Your task to perform on an android device: add a contact Image 0: 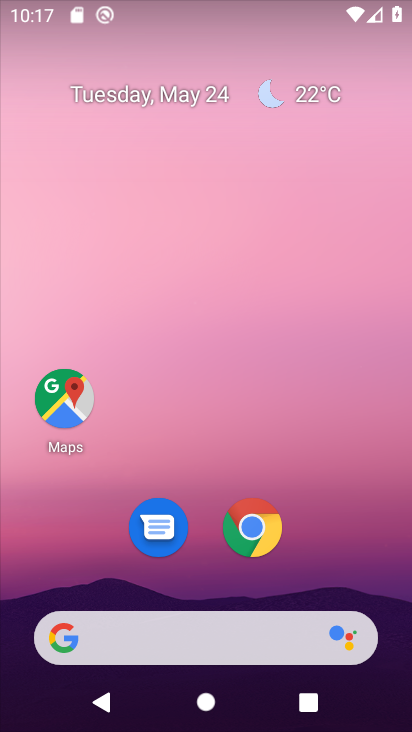
Step 0: drag from (171, 642) to (292, 160)
Your task to perform on an android device: add a contact Image 1: 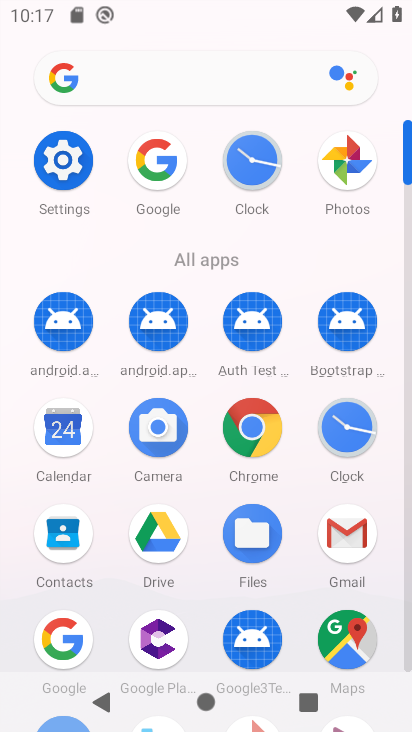
Step 1: click (64, 540)
Your task to perform on an android device: add a contact Image 2: 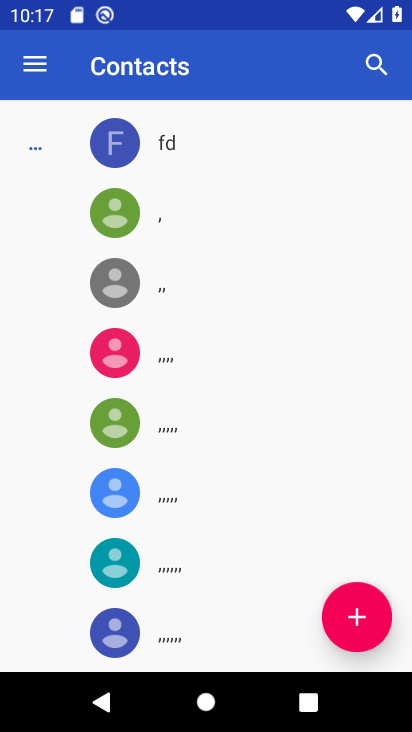
Step 2: click (353, 620)
Your task to perform on an android device: add a contact Image 3: 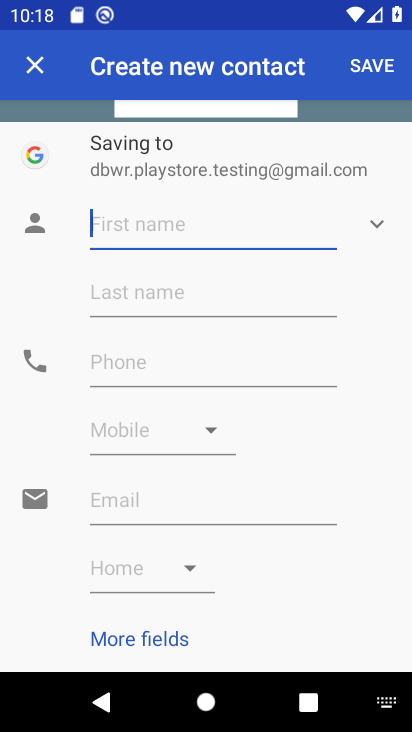
Step 3: type "nerrtdgdfgf"
Your task to perform on an android device: add a contact Image 4: 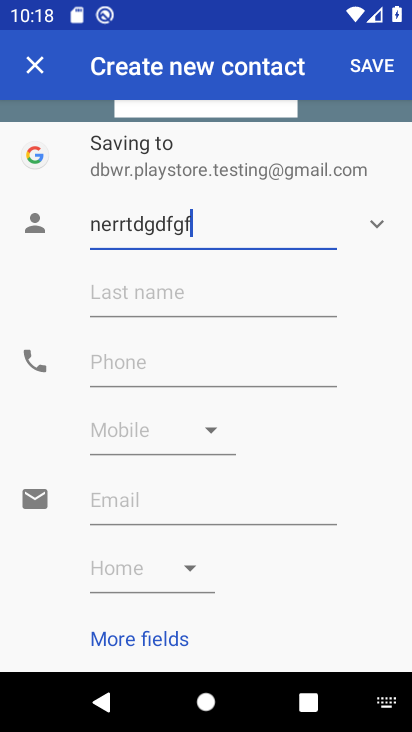
Step 4: click (132, 362)
Your task to perform on an android device: add a contact Image 5: 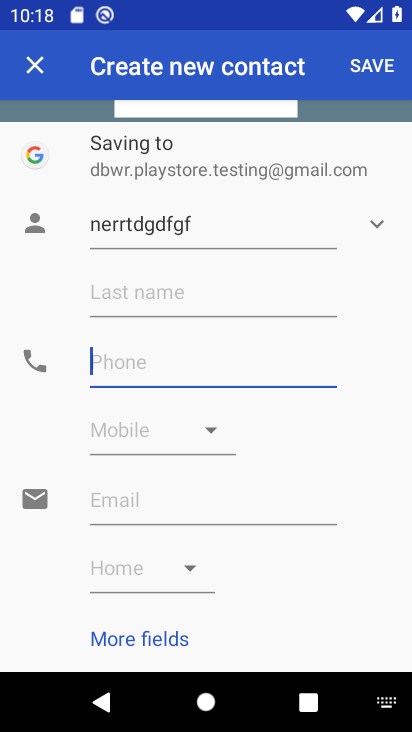
Step 5: type "26455868"
Your task to perform on an android device: add a contact Image 6: 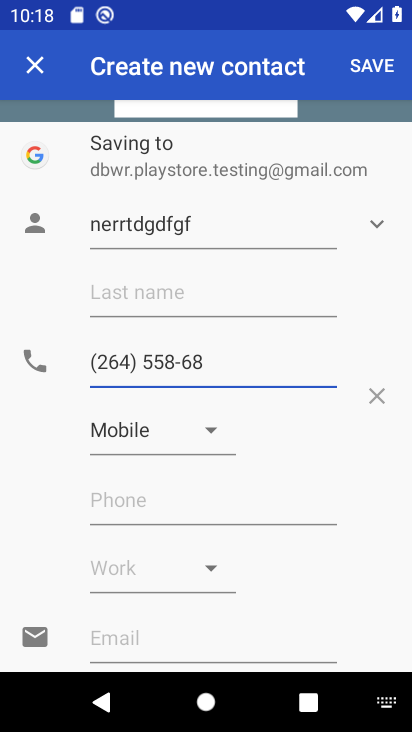
Step 6: click (373, 59)
Your task to perform on an android device: add a contact Image 7: 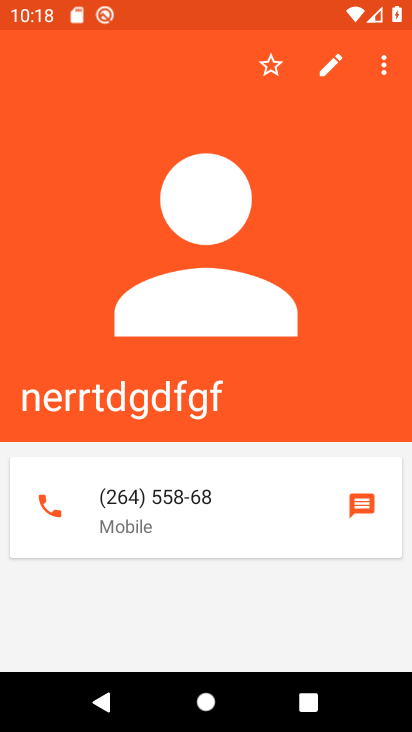
Step 7: task complete